Your task to perform on an android device: set default search engine in the chrome app Image 0: 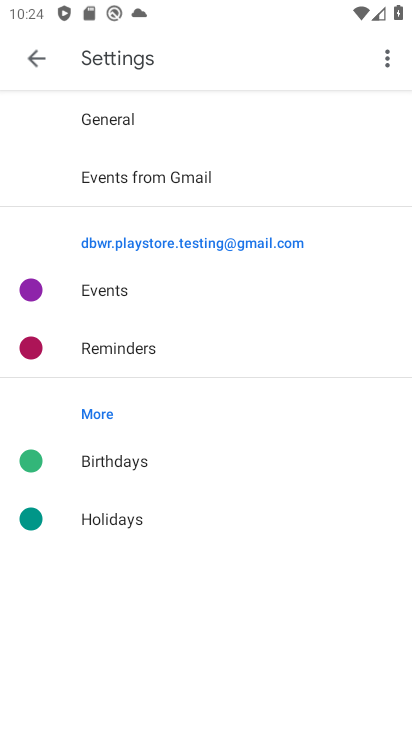
Step 0: press home button
Your task to perform on an android device: set default search engine in the chrome app Image 1: 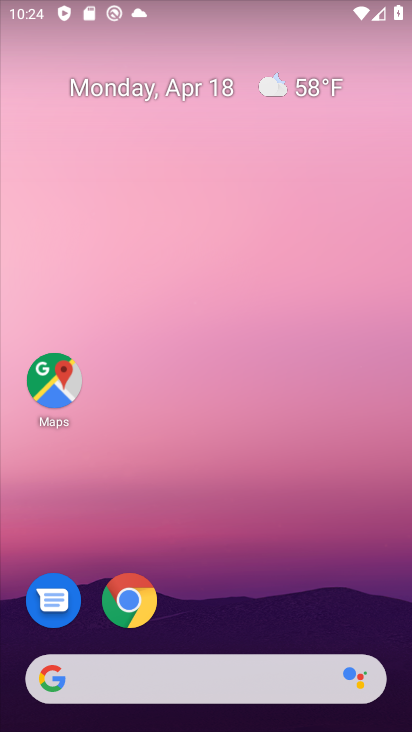
Step 1: drag from (239, 552) to (212, 5)
Your task to perform on an android device: set default search engine in the chrome app Image 2: 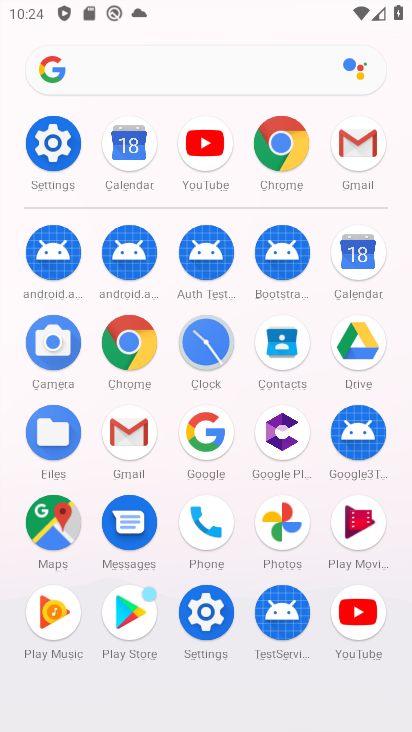
Step 2: click (280, 146)
Your task to perform on an android device: set default search engine in the chrome app Image 3: 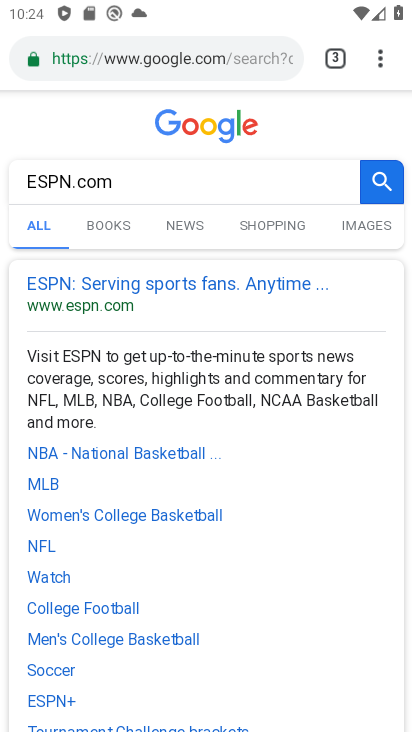
Step 3: click (376, 53)
Your task to perform on an android device: set default search engine in the chrome app Image 4: 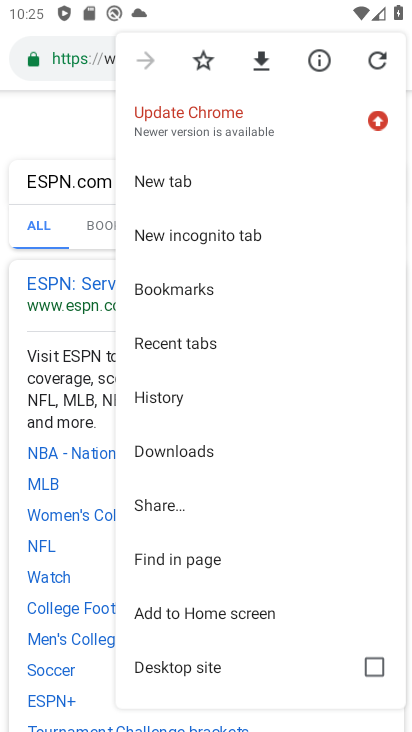
Step 4: drag from (217, 595) to (187, 216)
Your task to perform on an android device: set default search engine in the chrome app Image 5: 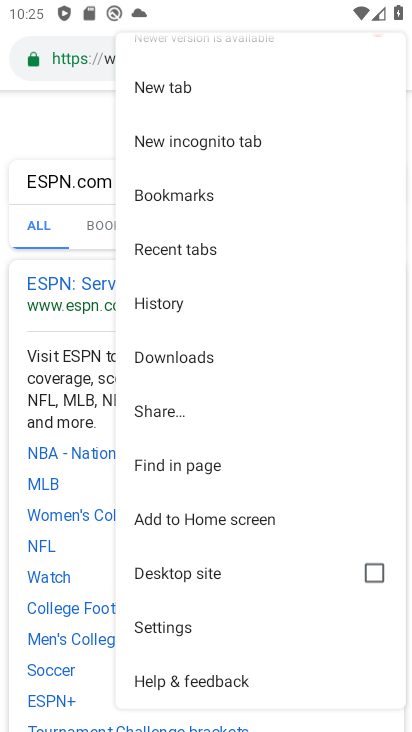
Step 5: click (181, 626)
Your task to perform on an android device: set default search engine in the chrome app Image 6: 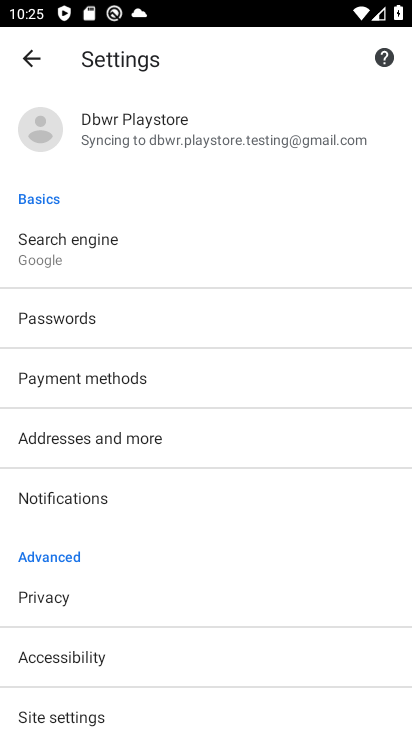
Step 6: click (73, 241)
Your task to perform on an android device: set default search engine in the chrome app Image 7: 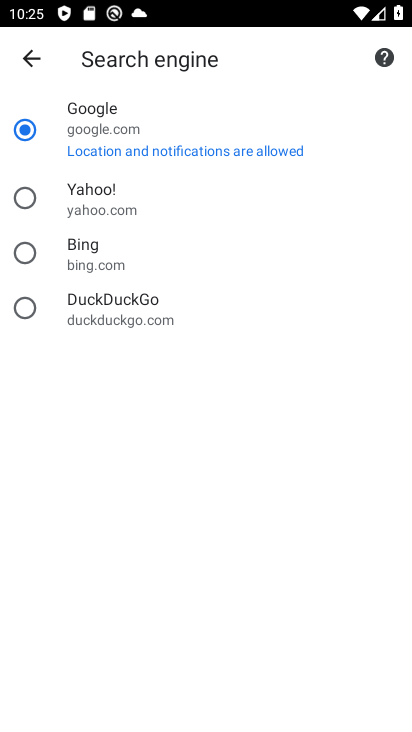
Step 7: click (26, 207)
Your task to perform on an android device: set default search engine in the chrome app Image 8: 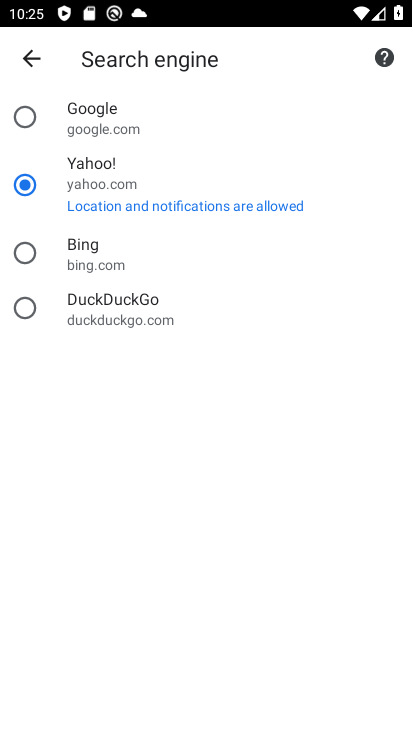
Step 8: task complete